Your task to perform on an android device: check google app version Image 0: 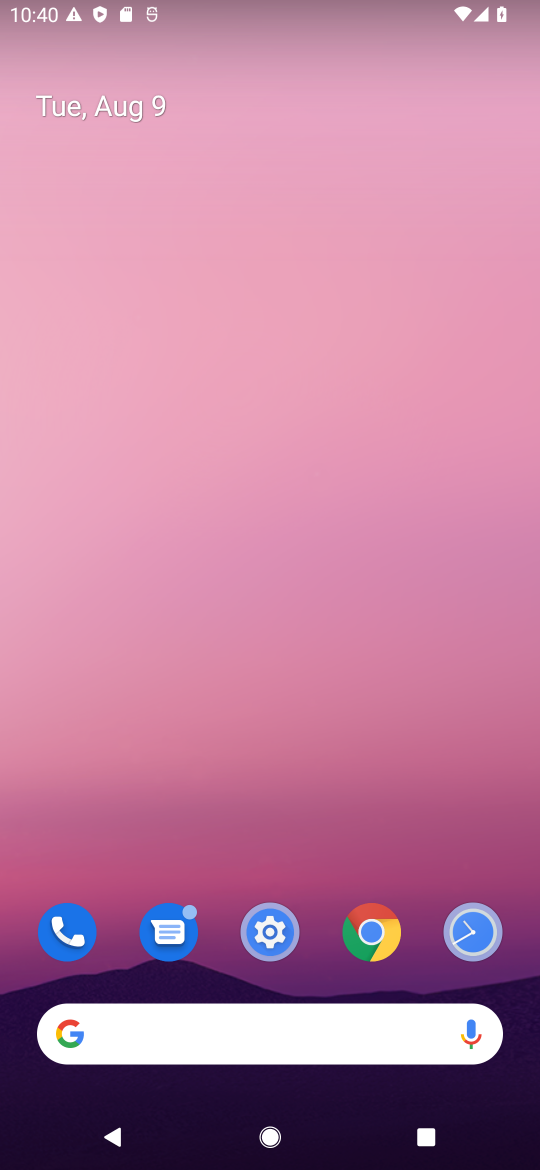
Step 0: click (49, 1047)
Your task to perform on an android device: check google app version Image 1: 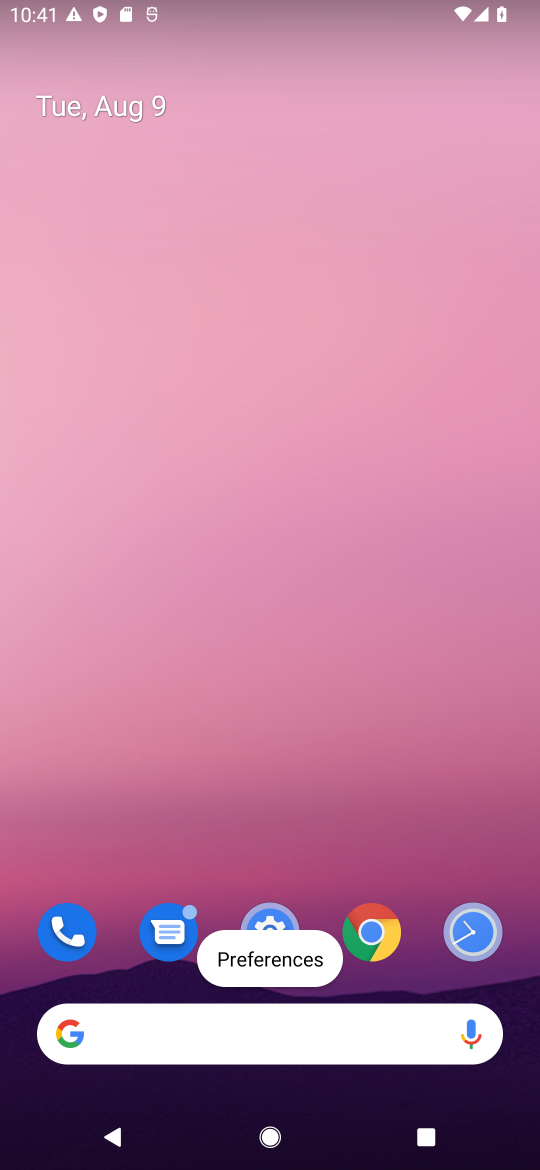
Step 1: click (73, 1023)
Your task to perform on an android device: check google app version Image 2: 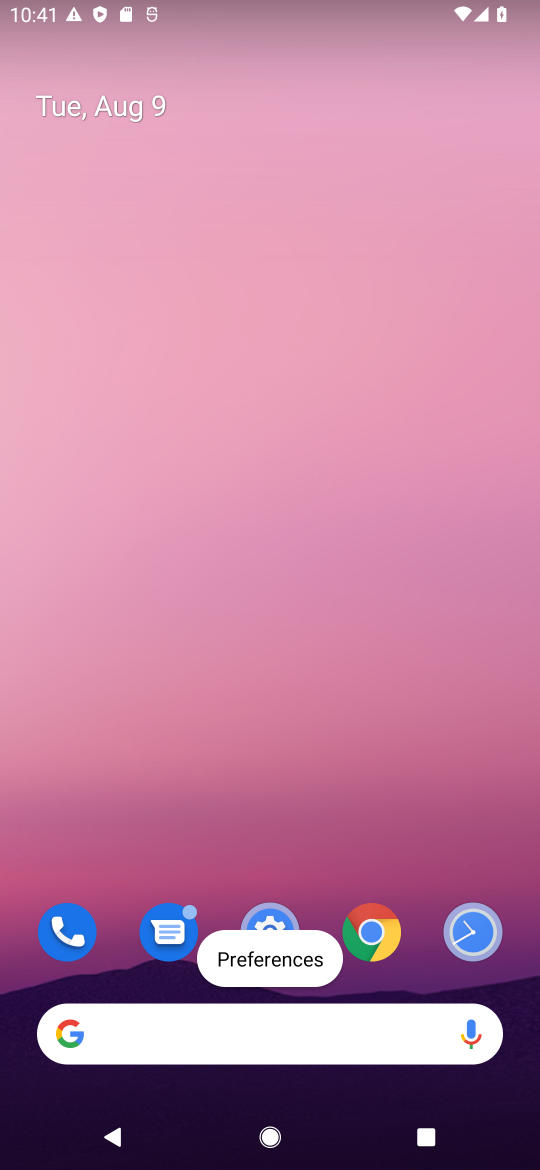
Step 2: click (71, 1022)
Your task to perform on an android device: check google app version Image 3: 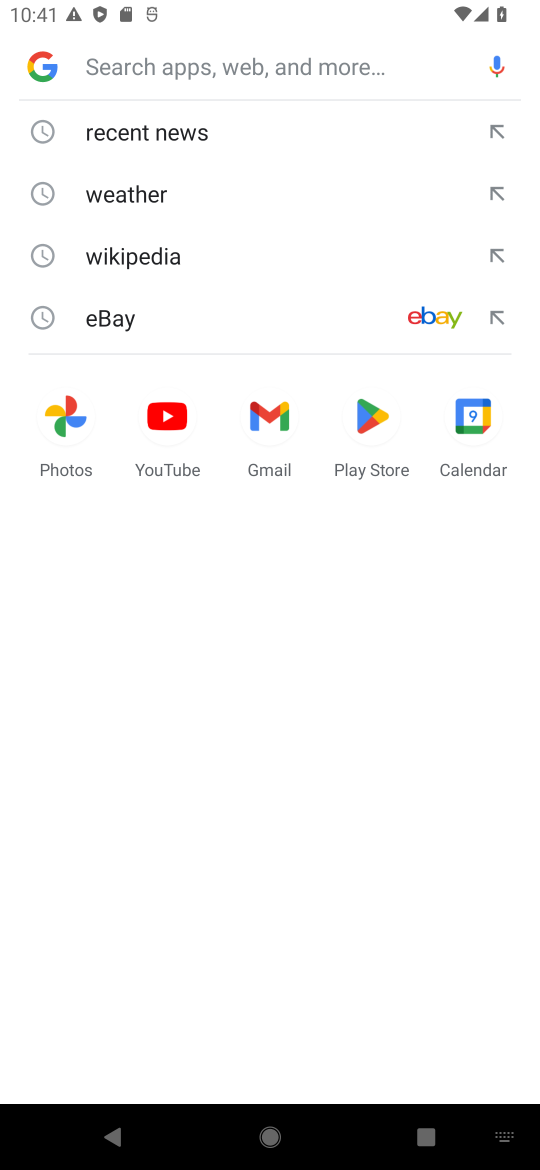
Step 3: click (48, 59)
Your task to perform on an android device: check google app version Image 4: 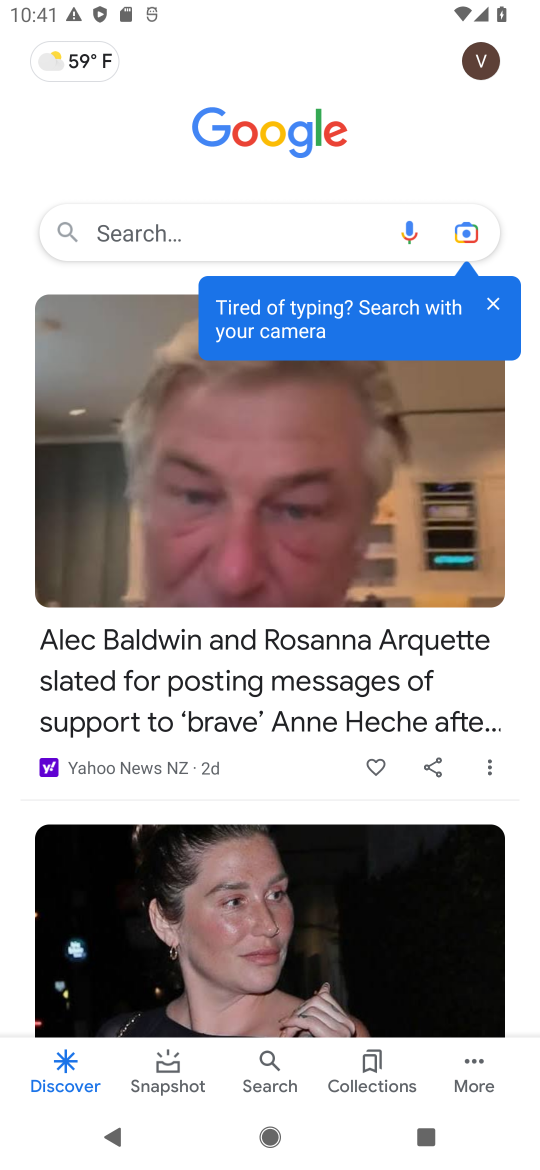
Step 4: click (469, 1063)
Your task to perform on an android device: check google app version Image 5: 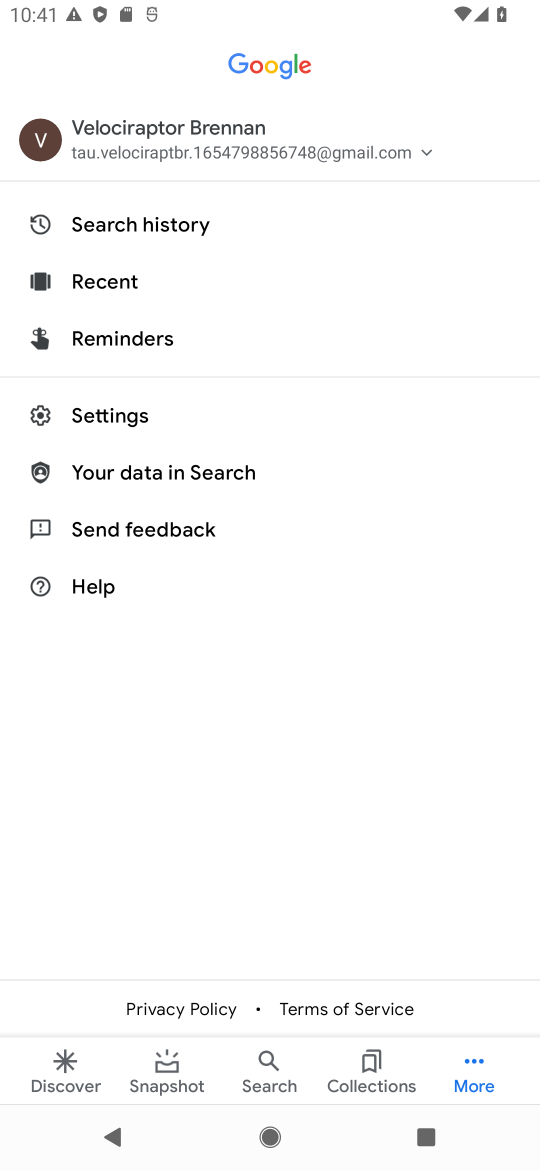
Step 5: click (109, 402)
Your task to perform on an android device: check google app version Image 6: 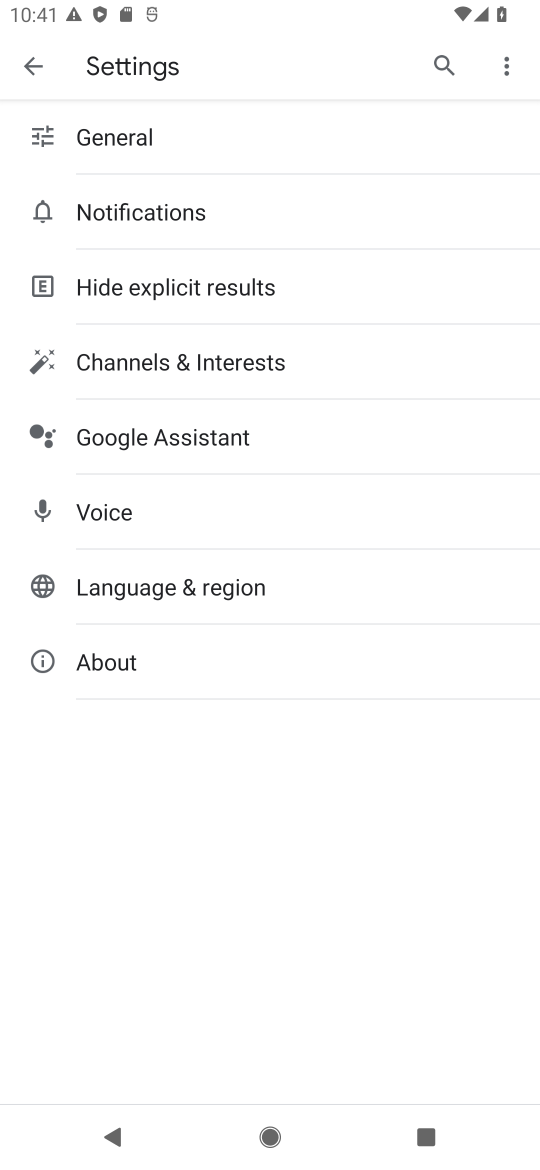
Step 6: click (153, 667)
Your task to perform on an android device: check google app version Image 7: 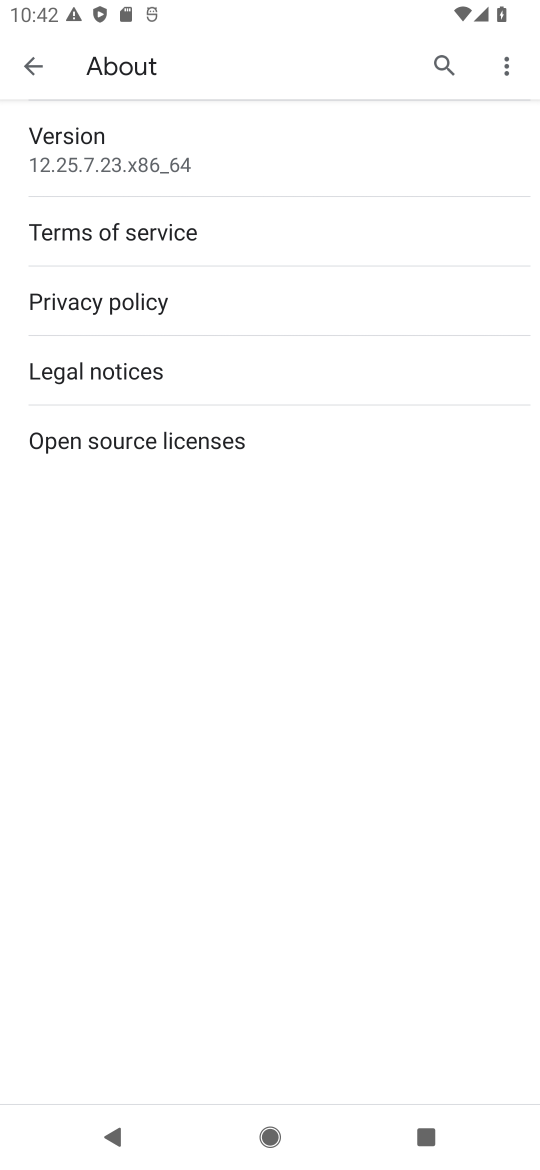
Step 7: task complete